Your task to perform on an android device: Go to ESPN.com Image 0: 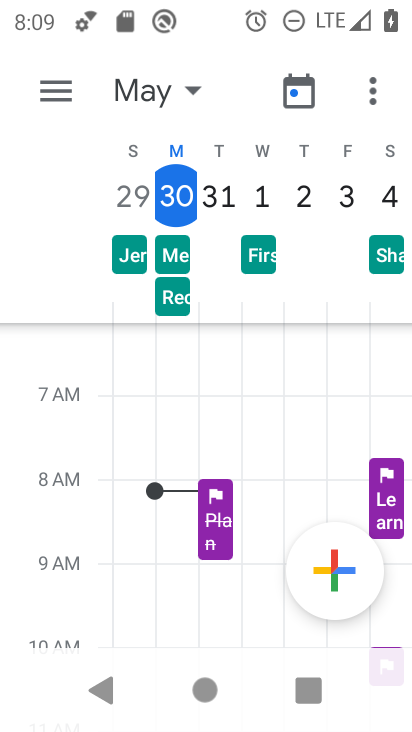
Step 0: press home button
Your task to perform on an android device: Go to ESPN.com Image 1: 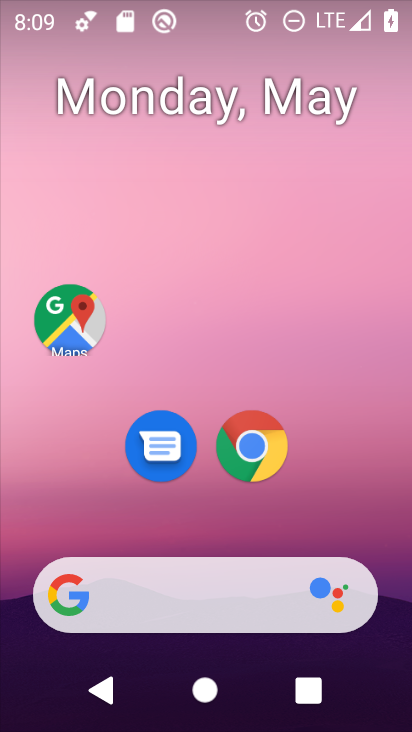
Step 1: click (255, 437)
Your task to perform on an android device: Go to ESPN.com Image 2: 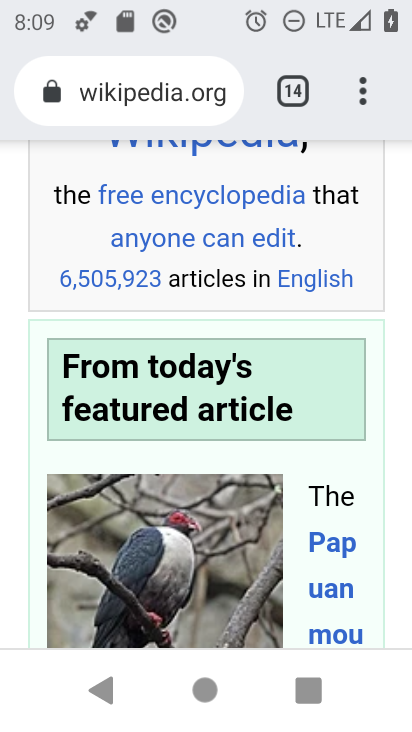
Step 2: click (366, 81)
Your task to perform on an android device: Go to ESPN.com Image 3: 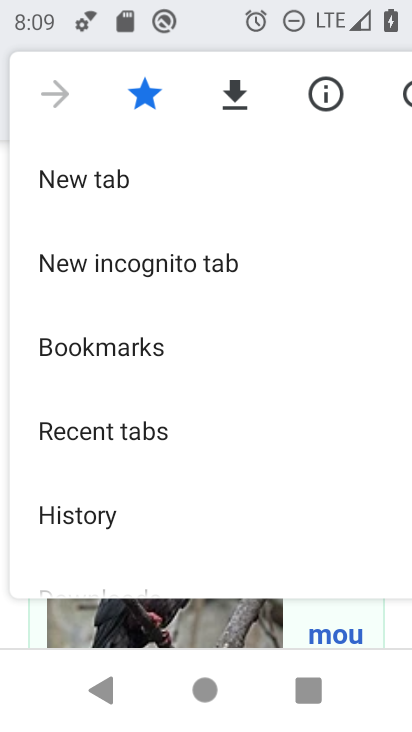
Step 3: click (96, 171)
Your task to perform on an android device: Go to ESPN.com Image 4: 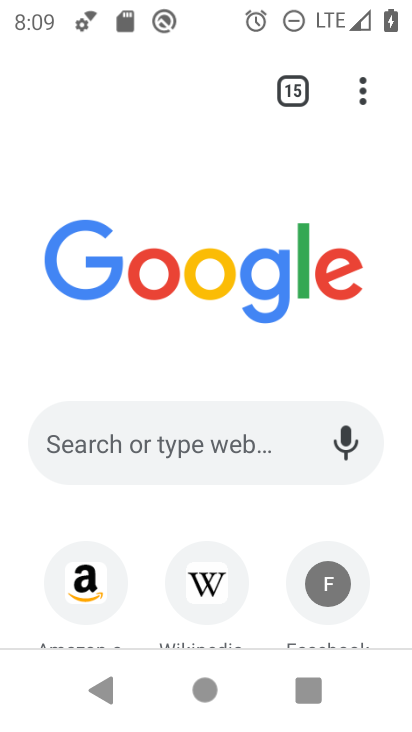
Step 4: drag from (199, 352) to (155, 21)
Your task to perform on an android device: Go to ESPN.com Image 5: 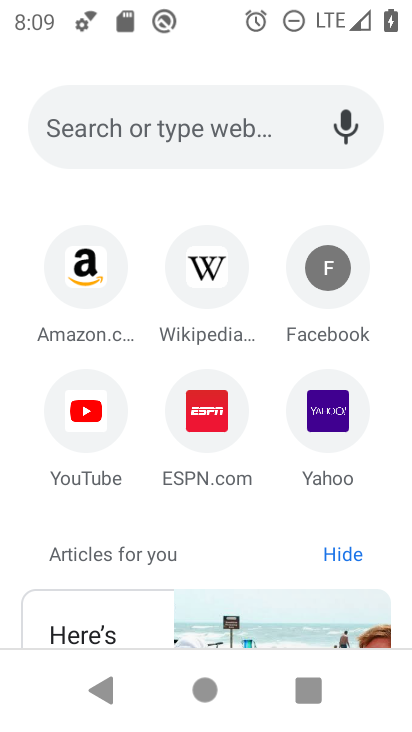
Step 5: click (210, 425)
Your task to perform on an android device: Go to ESPN.com Image 6: 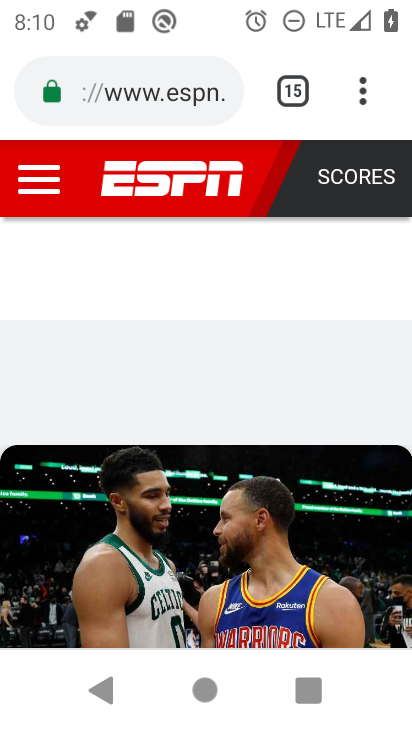
Step 6: task complete